Your task to perform on an android device: allow cookies in the chrome app Image 0: 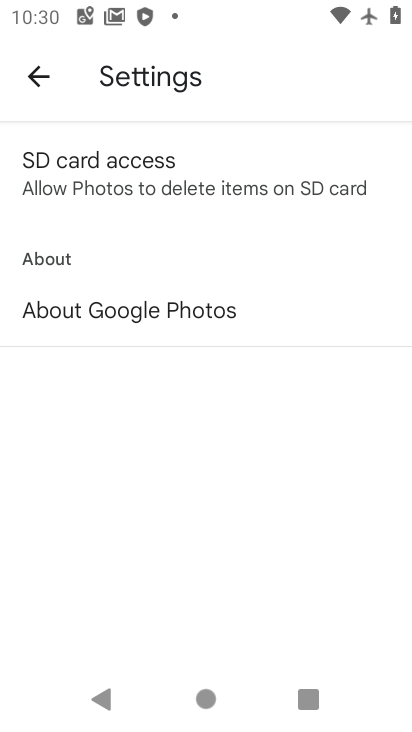
Step 0: click (23, 57)
Your task to perform on an android device: allow cookies in the chrome app Image 1: 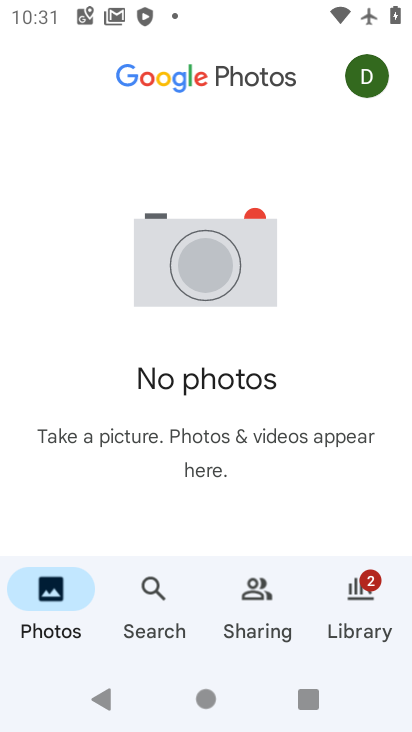
Step 1: task complete